Your task to perform on an android device: Open Google Chrome Image 0: 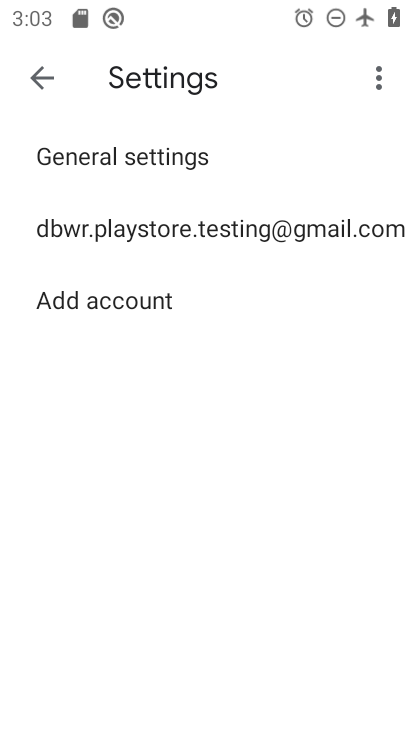
Step 0: press home button
Your task to perform on an android device: Open Google Chrome Image 1: 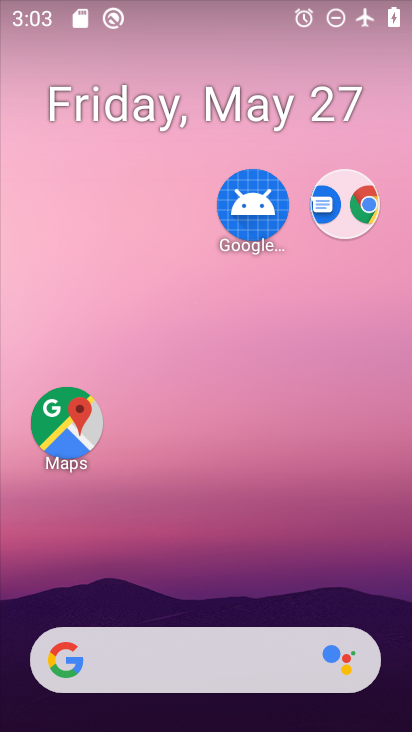
Step 1: drag from (251, 702) to (344, 169)
Your task to perform on an android device: Open Google Chrome Image 2: 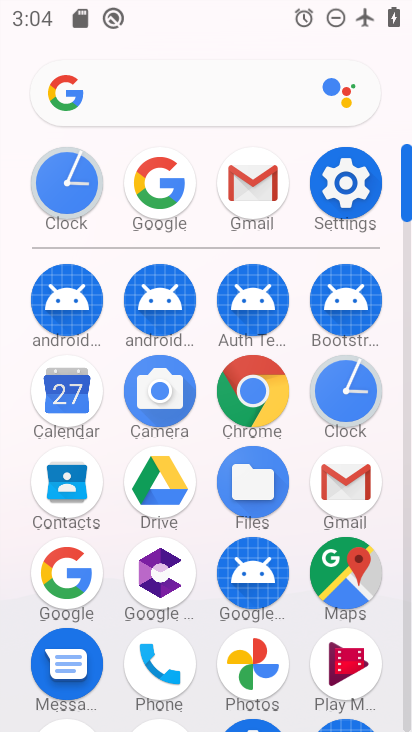
Step 2: click (236, 423)
Your task to perform on an android device: Open Google Chrome Image 3: 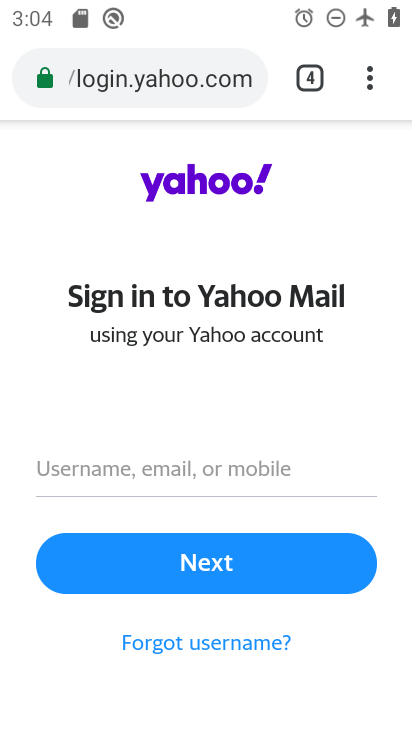
Step 3: task complete